Your task to perform on an android device: Search for "razer blackwidow" on target, select the first entry, add it to the cart, then select checkout. Image 0: 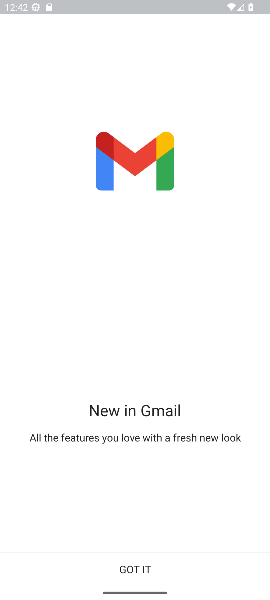
Step 0: press home button
Your task to perform on an android device: Search for "razer blackwidow" on target, select the first entry, add it to the cart, then select checkout. Image 1: 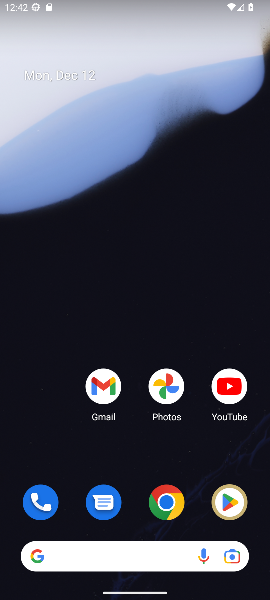
Step 1: click (179, 506)
Your task to perform on an android device: Search for "razer blackwidow" on target, select the first entry, add it to the cart, then select checkout. Image 2: 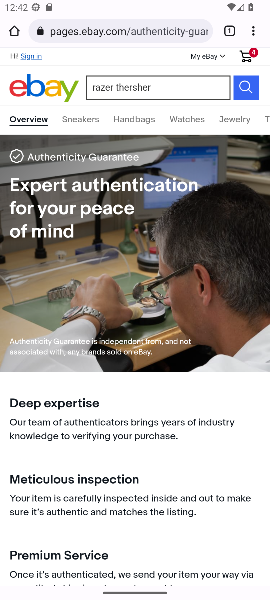
Step 2: click (127, 36)
Your task to perform on an android device: Search for "razer blackwidow" on target, select the first entry, add it to the cart, then select checkout. Image 3: 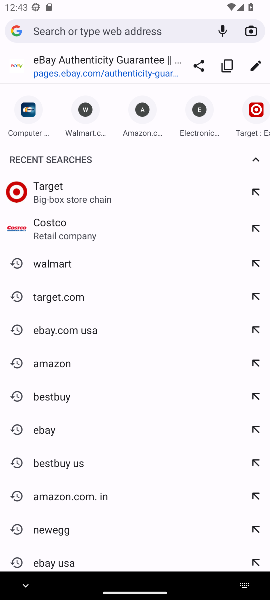
Step 3: type "target"
Your task to perform on an android device: Search for "razer blackwidow" on target, select the first entry, add it to the cart, then select checkout. Image 4: 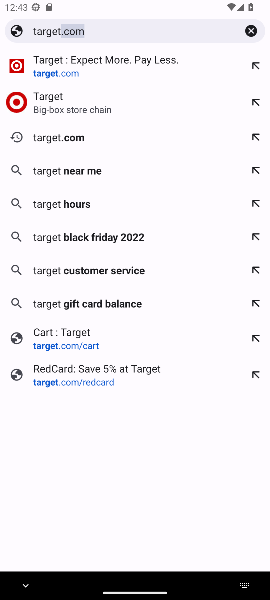
Step 4: click (95, 119)
Your task to perform on an android device: Search for "razer blackwidow" on target, select the first entry, add it to the cart, then select checkout. Image 5: 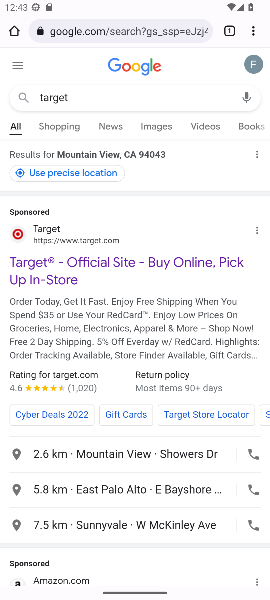
Step 5: click (44, 270)
Your task to perform on an android device: Search for "razer blackwidow" on target, select the first entry, add it to the cart, then select checkout. Image 6: 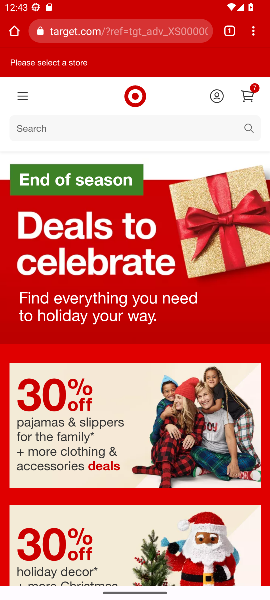
Step 6: click (99, 135)
Your task to perform on an android device: Search for "razer blackwidow" on target, select the first entry, add it to the cart, then select checkout. Image 7: 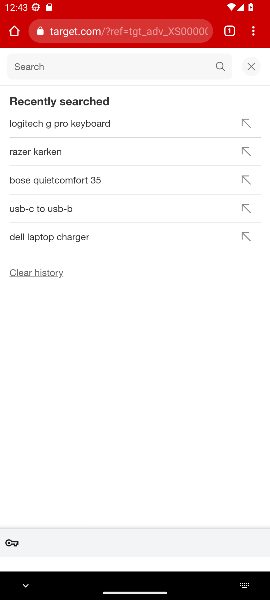
Step 7: type "razer blackwindow"
Your task to perform on an android device: Search for "razer blackwidow" on target, select the first entry, add it to the cart, then select checkout. Image 8: 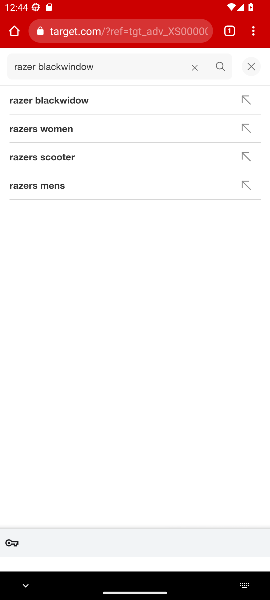
Step 8: click (220, 70)
Your task to perform on an android device: Search for "razer blackwidow" on target, select the first entry, add it to the cart, then select checkout. Image 9: 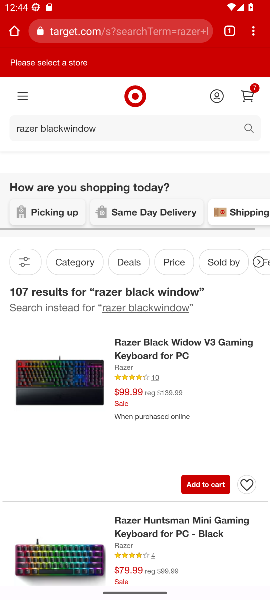
Step 9: click (217, 487)
Your task to perform on an android device: Search for "razer blackwidow" on target, select the first entry, add it to the cart, then select checkout. Image 10: 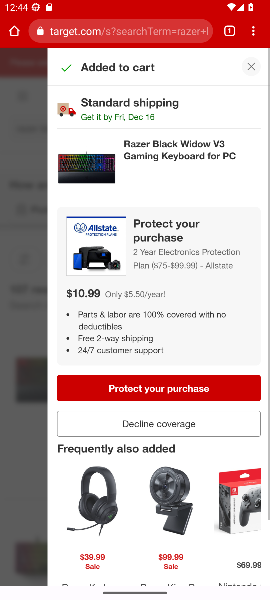
Step 10: task complete